Your task to perform on an android device: visit the assistant section in the google photos Image 0: 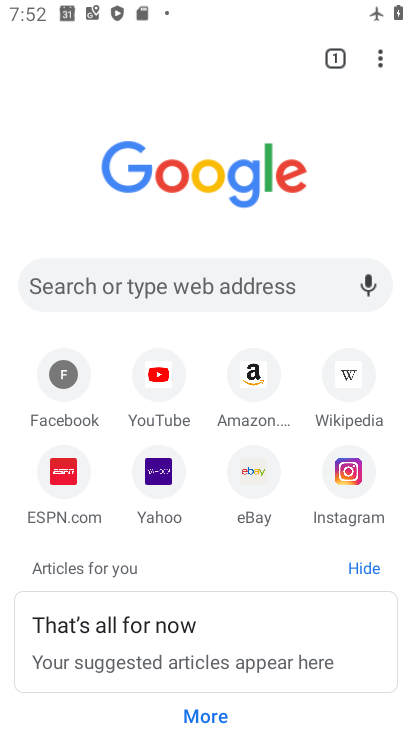
Step 0: press home button
Your task to perform on an android device: visit the assistant section in the google photos Image 1: 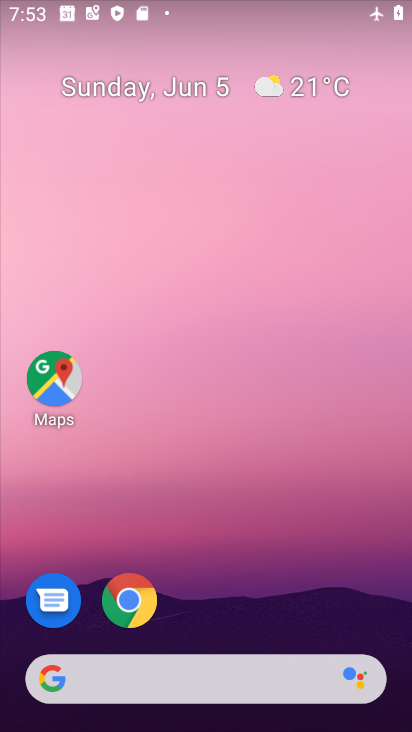
Step 1: drag from (215, 580) to (265, 0)
Your task to perform on an android device: visit the assistant section in the google photos Image 2: 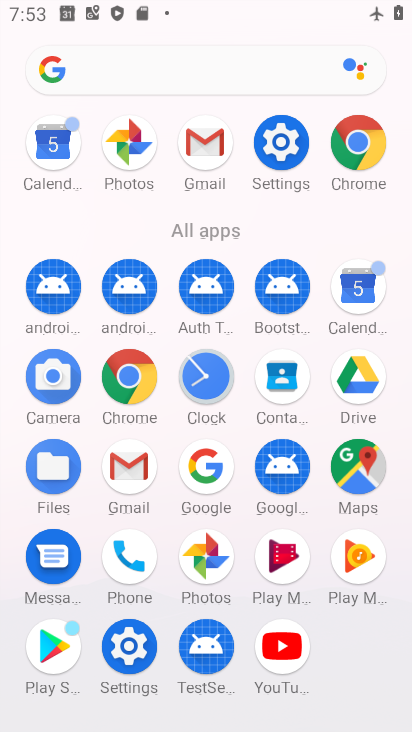
Step 2: click (201, 554)
Your task to perform on an android device: visit the assistant section in the google photos Image 3: 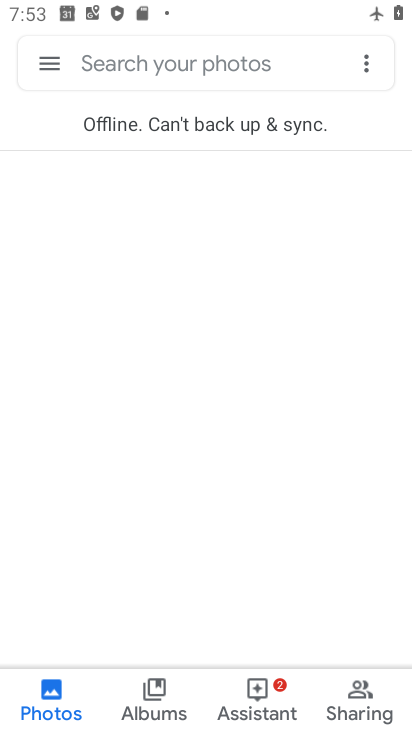
Step 3: click (246, 689)
Your task to perform on an android device: visit the assistant section in the google photos Image 4: 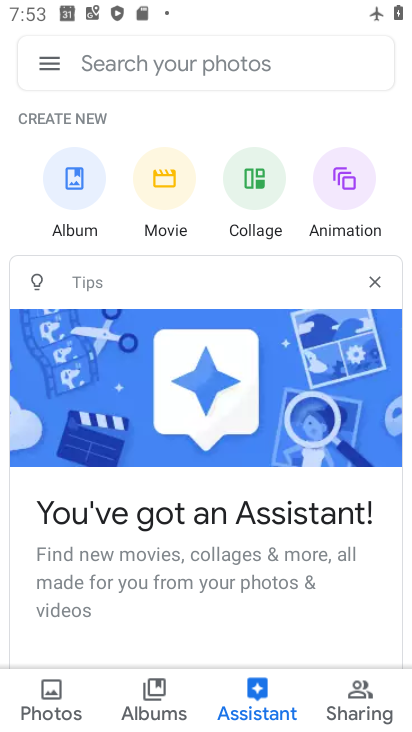
Step 4: task complete